Your task to perform on an android device: toggle show notifications on the lock screen Image 0: 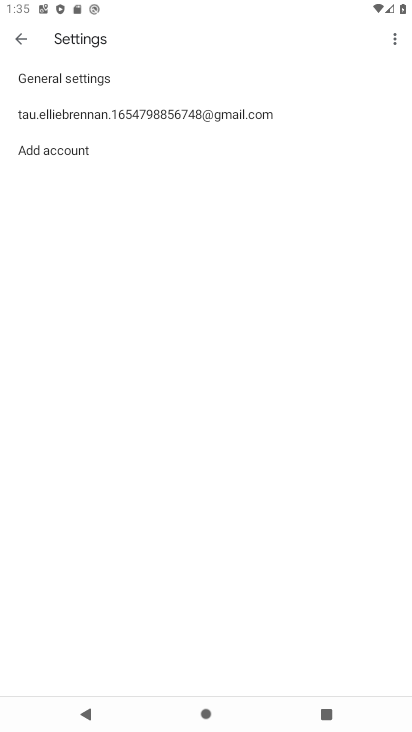
Step 0: press home button
Your task to perform on an android device: toggle show notifications on the lock screen Image 1: 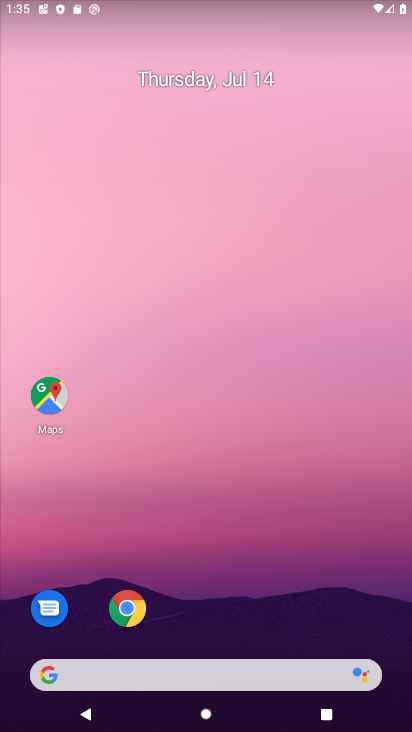
Step 1: drag from (384, 635) to (333, 82)
Your task to perform on an android device: toggle show notifications on the lock screen Image 2: 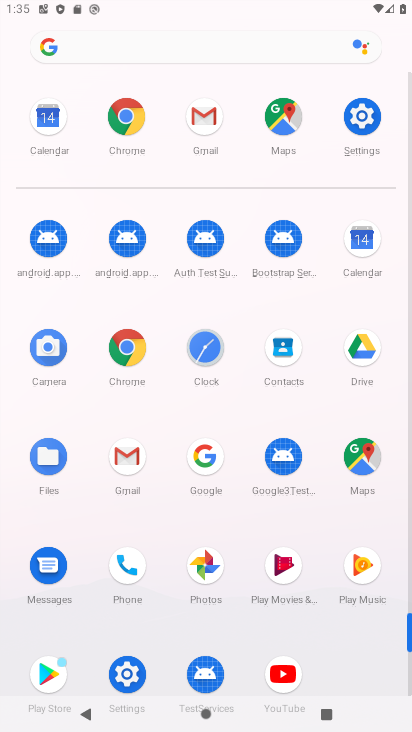
Step 2: click (128, 674)
Your task to perform on an android device: toggle show notifications on the lock screen Image 3: 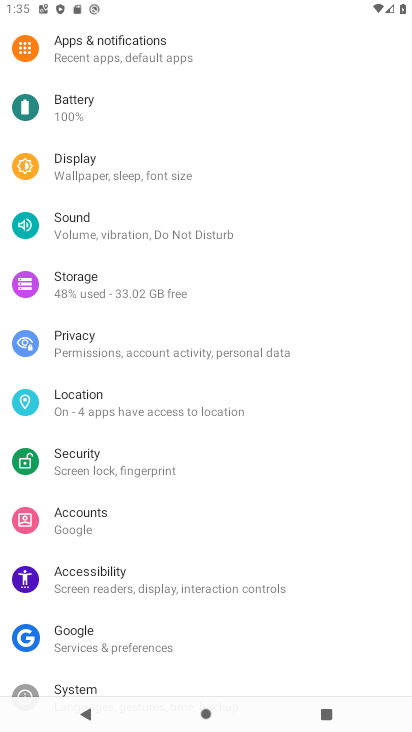
Step 3: drag from (294, 215) to (273, 451)
Your task to perform on an android device: toggle show notifications on the lock screen Image 4: 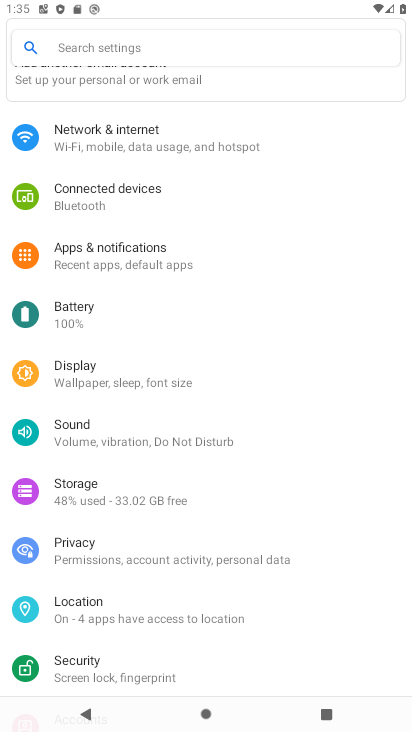
Step 4: click (112, 248)
Your task to perform on an android device: toggle show notifications on the lock screen Image 5: 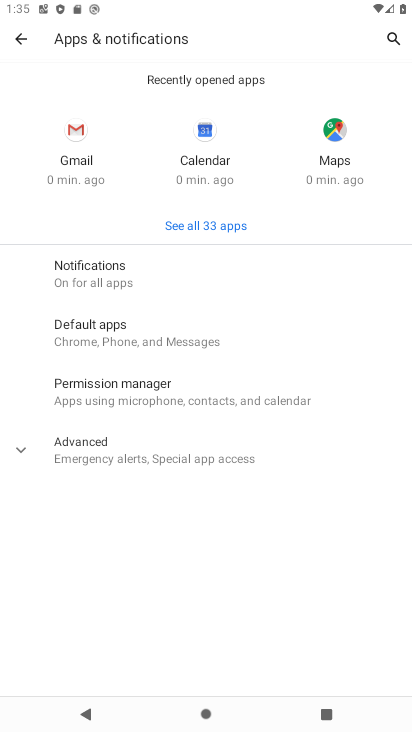
Step 5: click (92, 280)
Your task to perform on an android device: toggle show notifications on the lock screen Image 6: 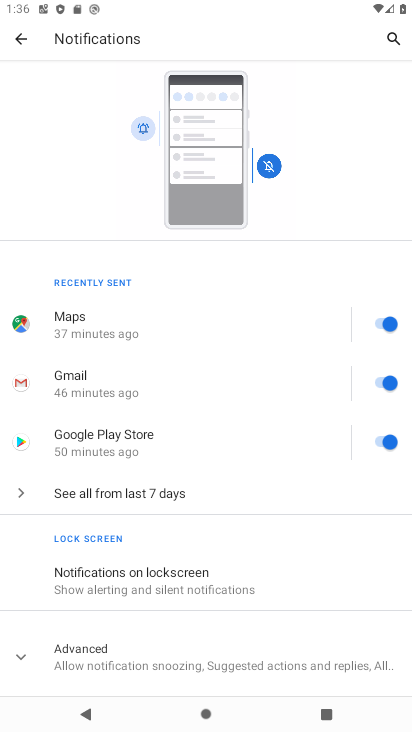
Step 6: click (105, 582)
Your task to perform on an android device: toggle show notifications on the lock screen Image 7: 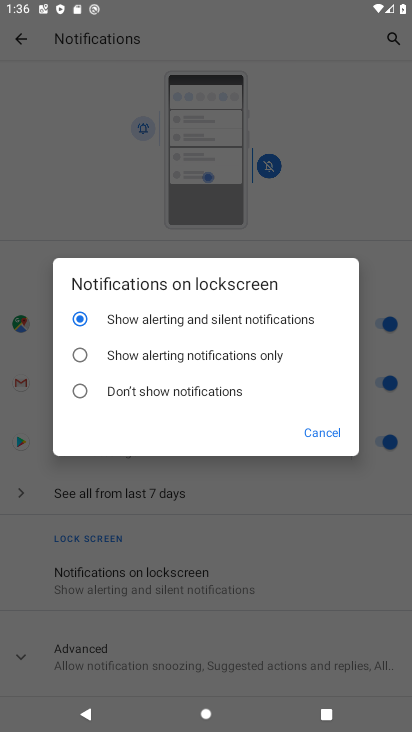
Step 7: click (105, 582)
Your task to perform on an android device: toggle show notifications on the lock screen Image 8: 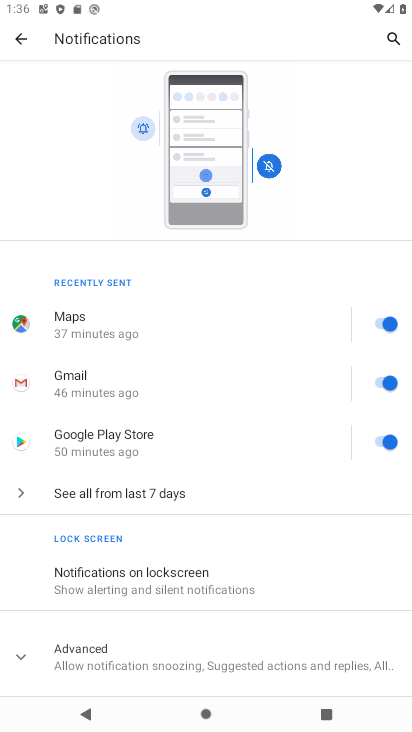
Step 8: click (135, 580)
Your task to perform on an android device: toggle show notifications on the lock screen Image 9: 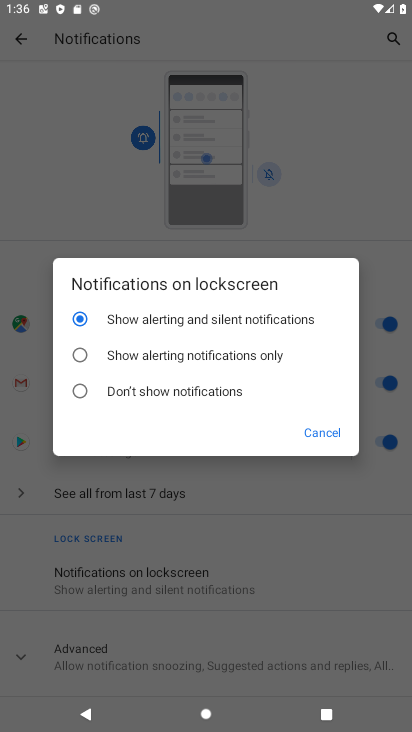
Step 9: click (78, 352)
Your task to perform on an android device: toggle show notifications on the lock screen Image 10: 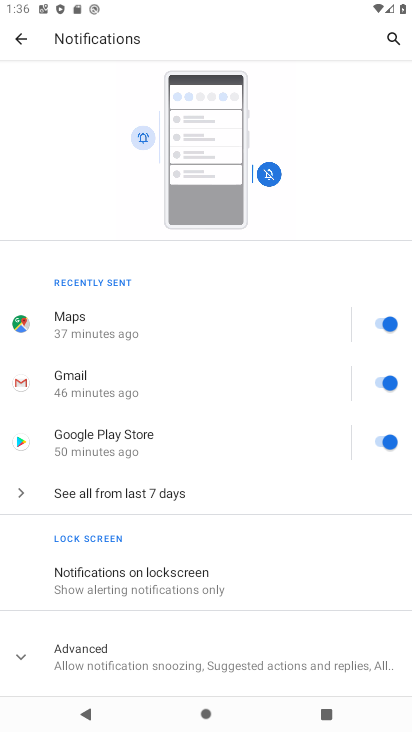
Step 10: task complete